Your task to perform on an android device: open chrome privacy settings Image 0: 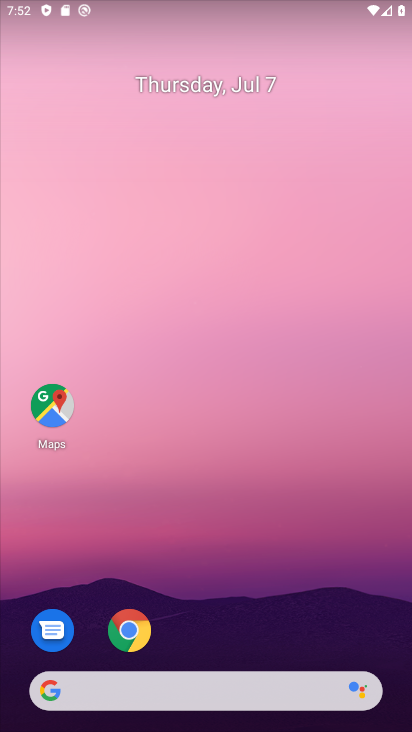
Step 0: drag from (201, 682) to (308, 35)
Your task to perform on an android device: open chrome privacy settings Image 1: 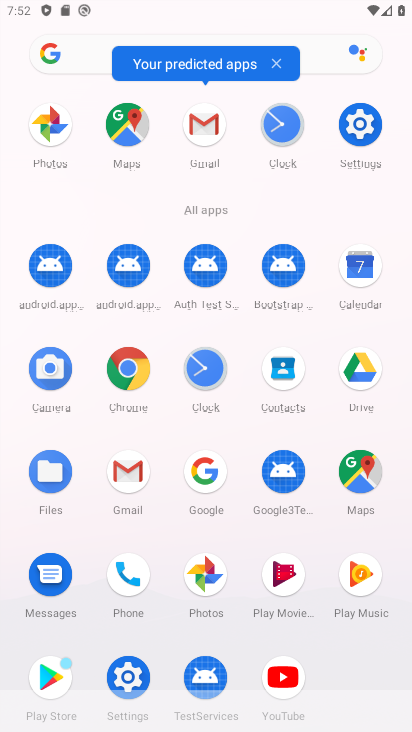
Step 1: click (126, 364)
Your task to perform on an android device: open chrome privacy settings Image 2: 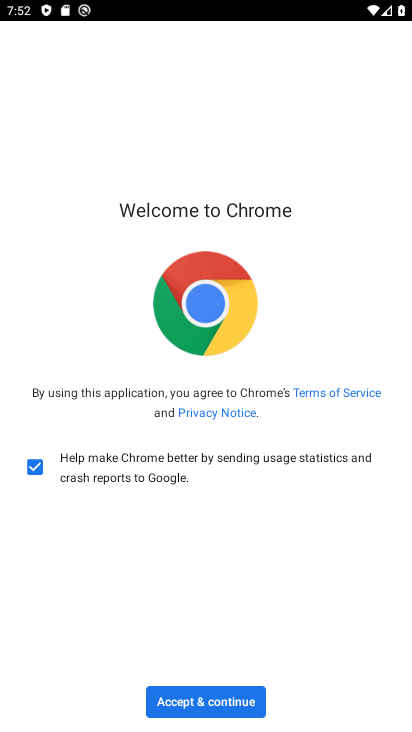
Step 2: click (224, 704)
Your task to perform on an android device: open chrome privacy settings Image 3: 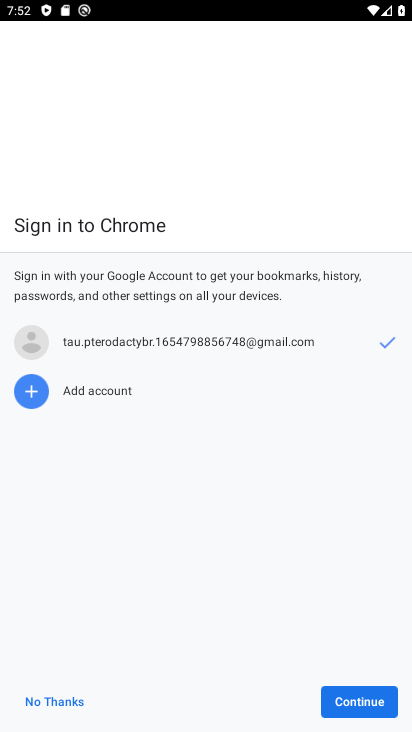
Step 3: click (353, 698)
Your task to perform on an android device: open chrome privacy settings Image 4: 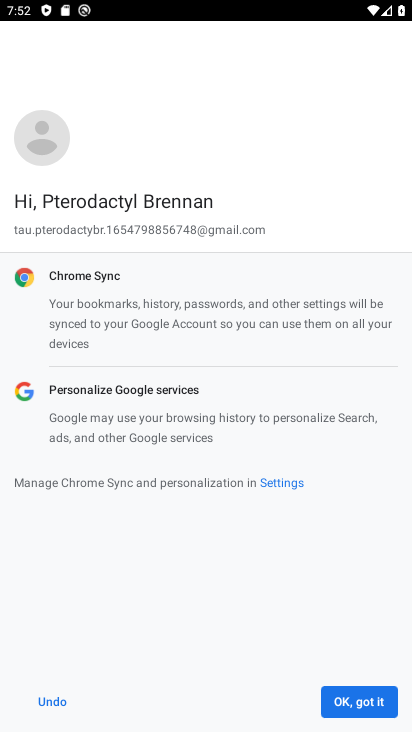
Step 4: click (388, 707)
Your task to perform on an android device: open chrome privacy settings Image 5: 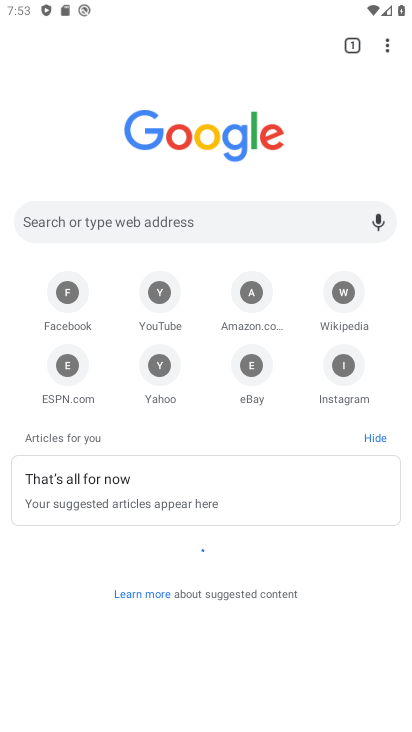
Step 5: drag from (388, 48) to (267, 374)
Your task to perform on an android device: open chrome privacy settings Image 6: 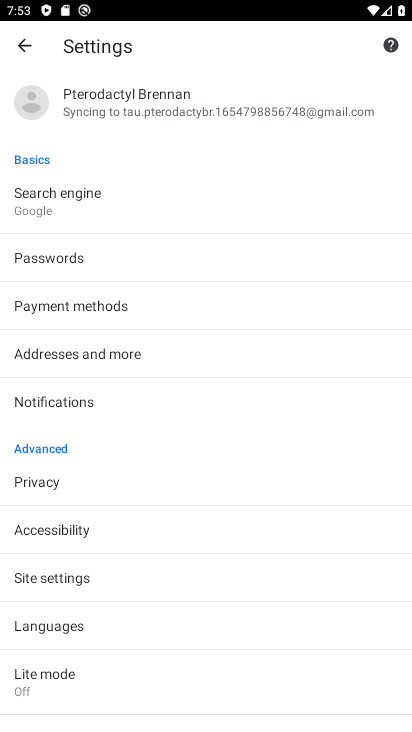
Step 6: click (72, 470)
Your task to perform on an android device: open chrome privacy settings Image 7: 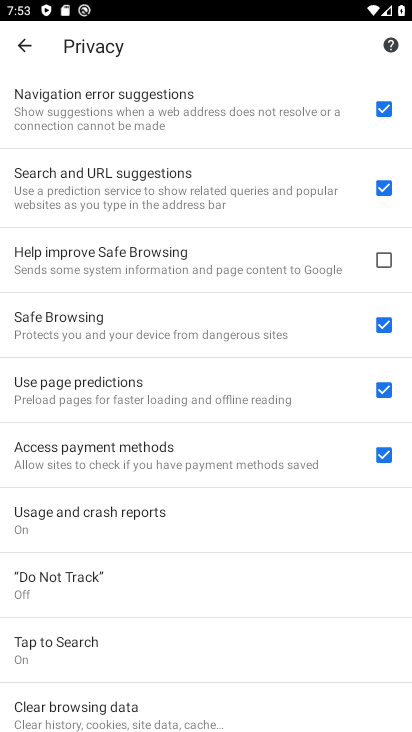
Step 7: task complete